Your task to perform on an android device: Go to accessibility settings Image 0: 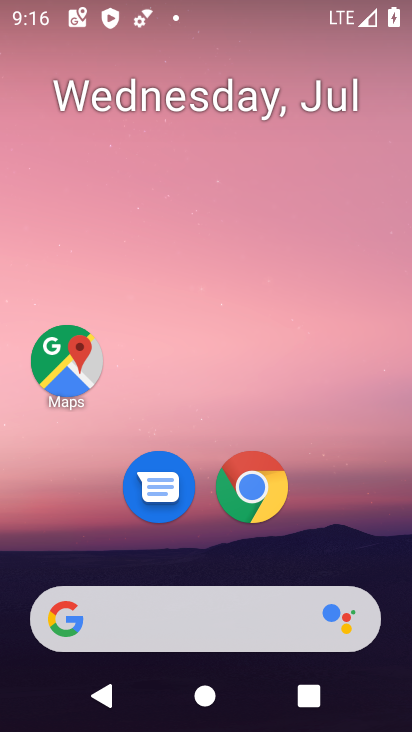
Step 0: press home button
Your task to perform on an android device: Go to accessibility settings Image 1: 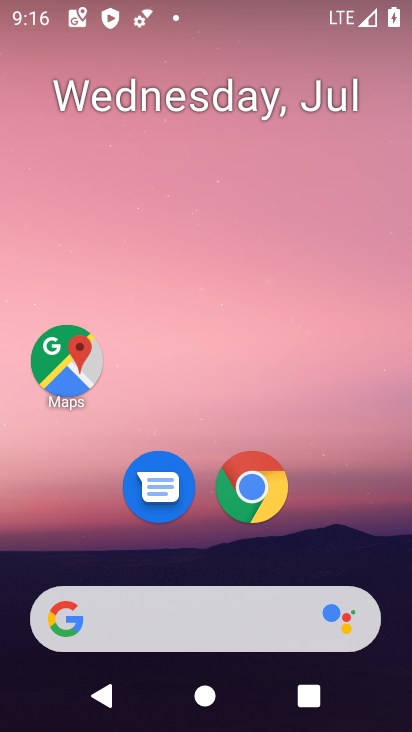
Step 1: drag from (229, 564) to (152, 67)
Your task to perform on an android device: Go to accessibility settings Image 2: 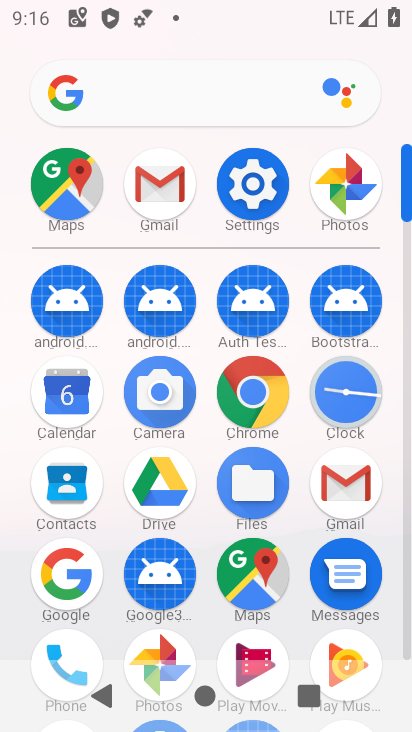
Step 2: click (247, 168)
Your task to perform on an android device: Go to accessibility settings Image 3: 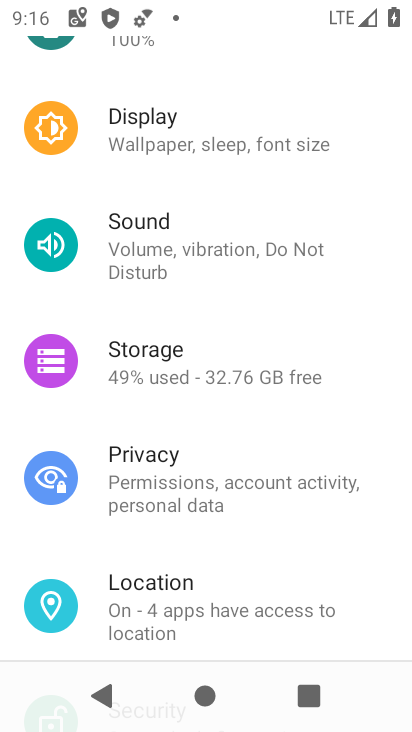
Step 3: drag from (308, 341) to (291, 522)
Your task to perform on an android device: Go to accessibility settings Image 4: 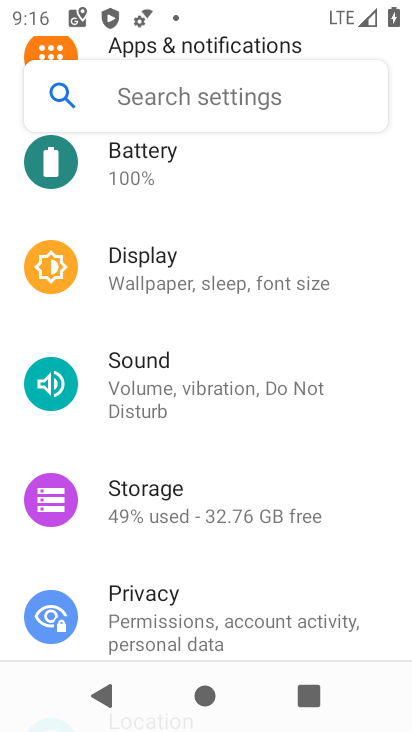
Step 4: drag from (291, 522) to (197, 125)
Your task to perform on an android device: Go to accessibility settings Image 5: 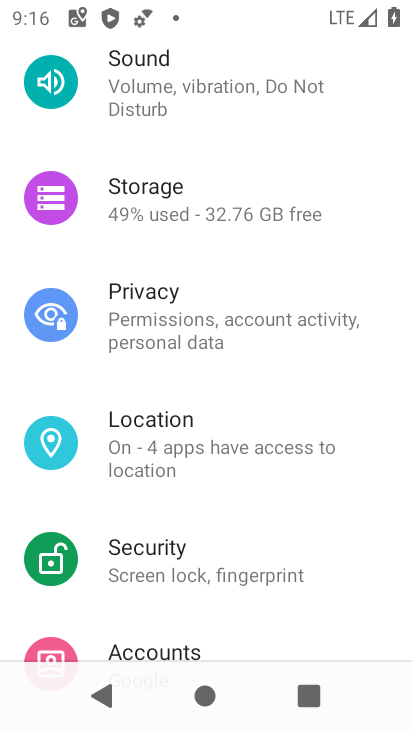
Step 5: drag from (293, 459) to (193, 10)
Your task to perform on an android device: Go to accessibility settings Image 6: 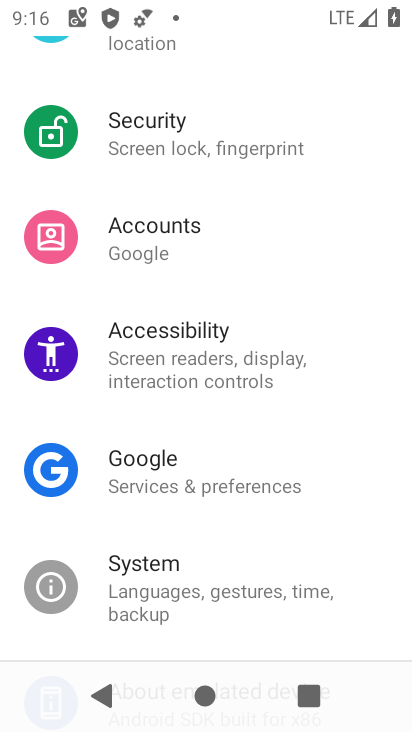
Step 6: click (148, 384)
Your task to perform on an android device: Go to accessibility settings Image 7: 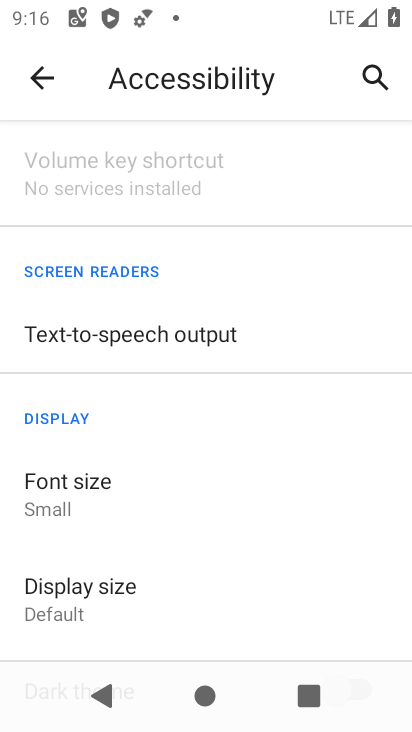
Step 7: task complete